Your task to perform on an android device: add a label to a message in the gmail app Image 0: 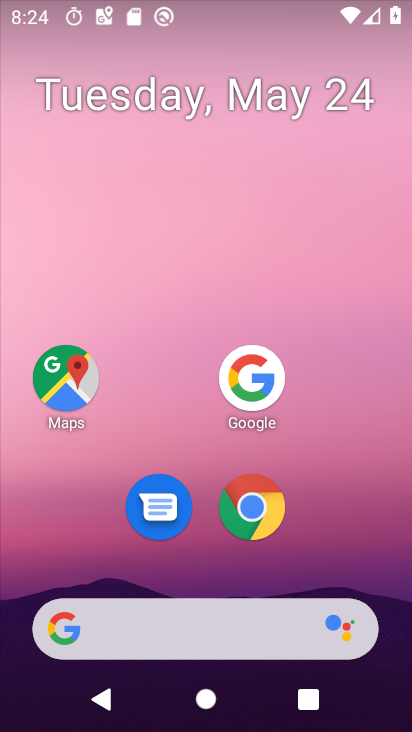
Step 0: press home button
Your task to perform on an android device: add a label to a message in the gmail app Image 1: 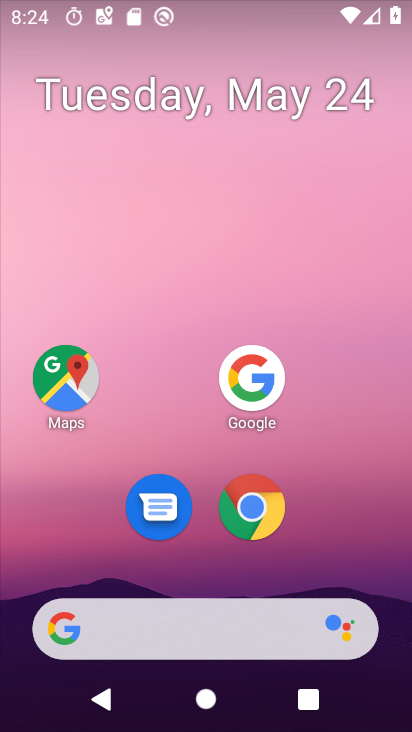
Step 1: drag from (187, 583) to (353, 69)
Your task to perform on an android device: add a label to a message in the gmail app Image 2: 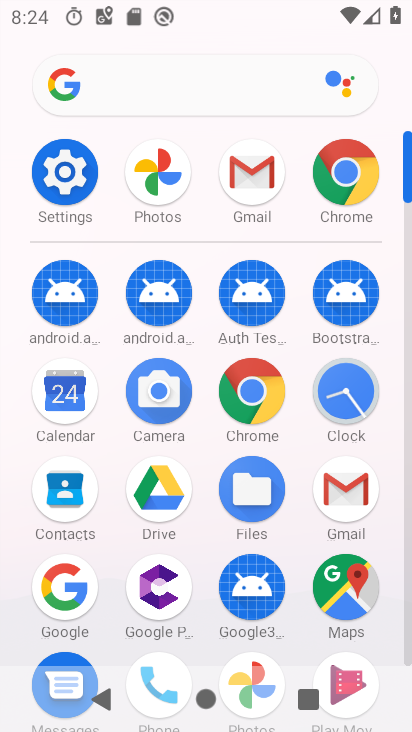
Step 2: click (253, 195)
Your task to perform on an android device: add a label to a message in the gmail app Image 3: 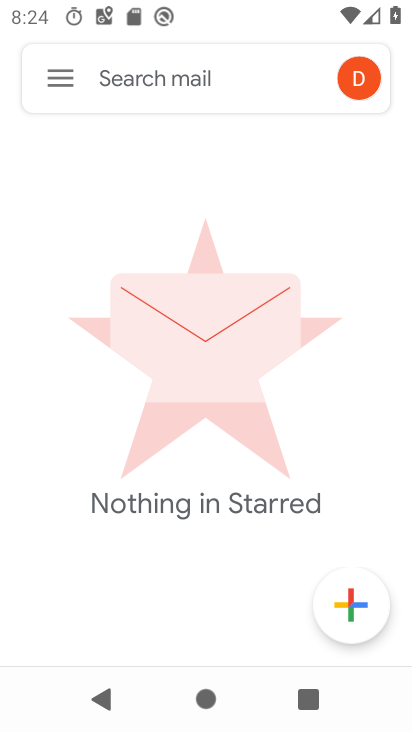
Step 3: click (63, 80)
Your task to perform on an android device: add a label to a message in the gmail app Image 4: 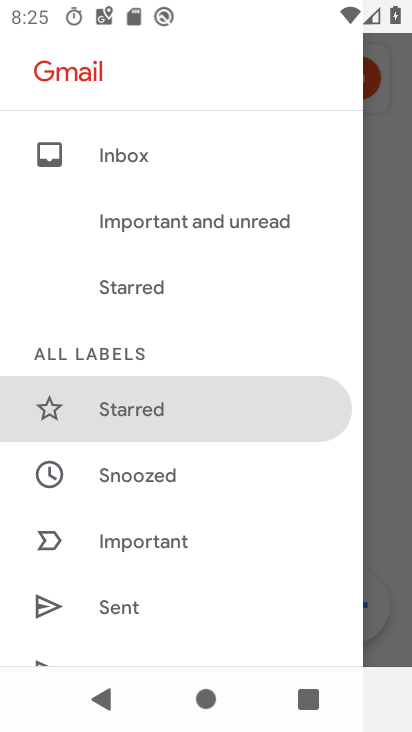
Step 4: drag from (219, 591) to (265, 200)
Your task to perform on an android device: add a label to a message in the gmail app Image 5: 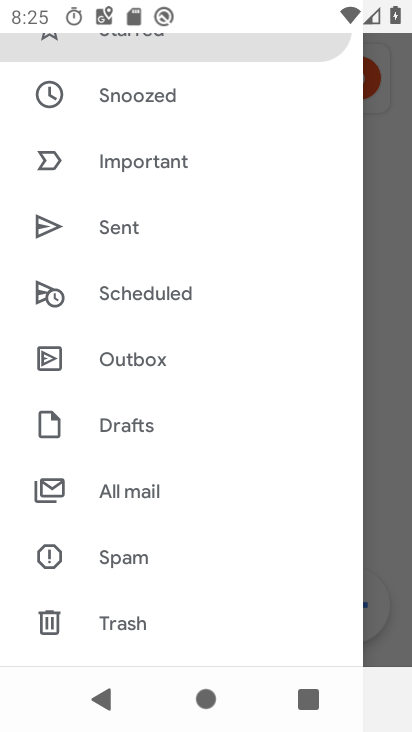
Step 5: click (137, 497)
Your task to perform on an android device: add a label to a message in the gmail app Image 6: 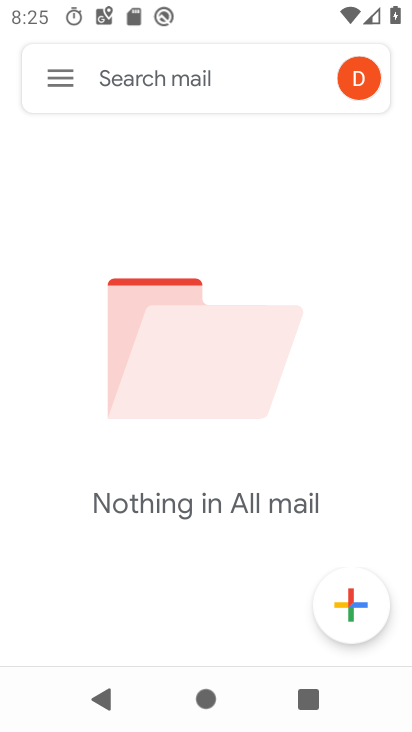
Step 6: task complete